Your task to perform on an android device: Turn off the flashlight Image 0: 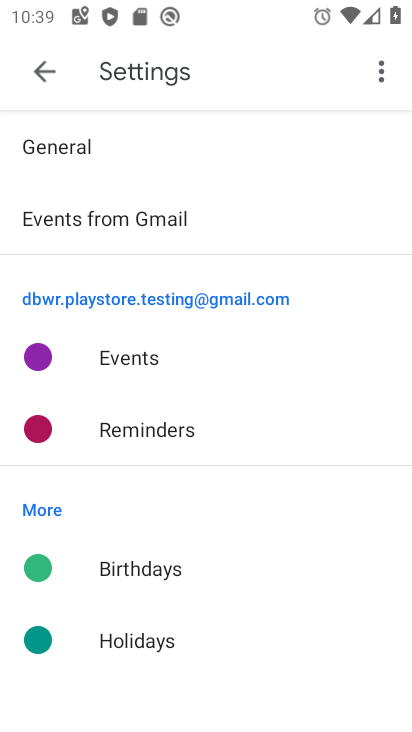
Step 0: press home button
Your task to perform on an android device: Turn off the flashlight Image 1: 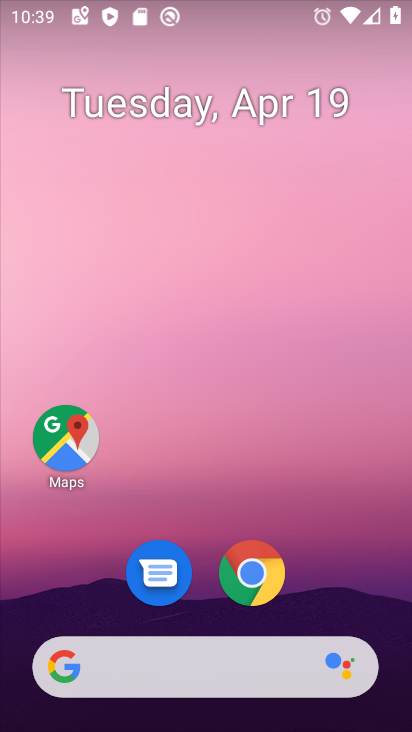
Step 1: drag from (330, 487) to (281, 120)
Your task to perform on an android device: Turn off the flashlight Image 2: 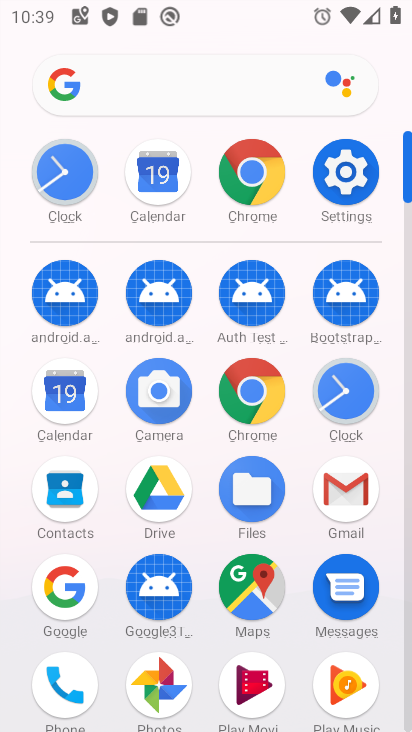
Step 2: click (348, 176)
Your task to perform on an android device: Turn off the flashlight Image 3: 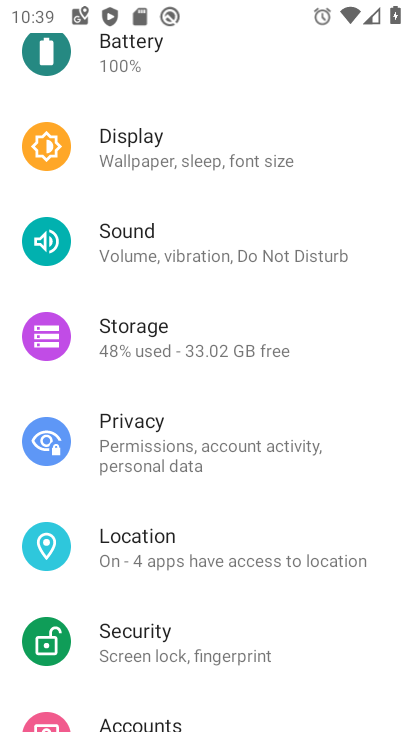
Step 3: drag from (228, 119) to (174, 499)
Your task to perform on an android device: Turn off the flashlight Image 4: 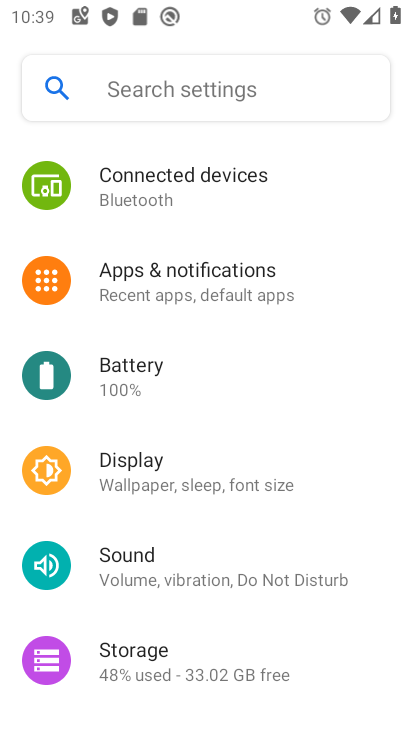
Step 4: click (145, 88)
Your task to perform on an android device: Turn off the flashlight Image 5: 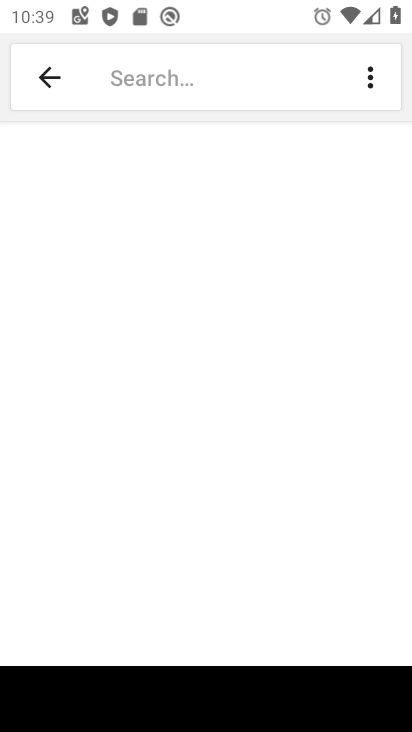
Step 5: type "flashlight"
Your task to perform on an android device: Turn off the flashlight Image 6: 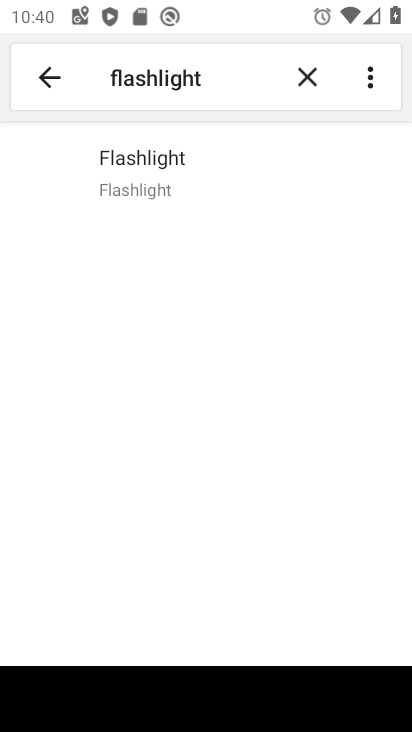
Step 6: click (158, 175)
Your task to perform on an android device: Turn off the flashlight Image 7: 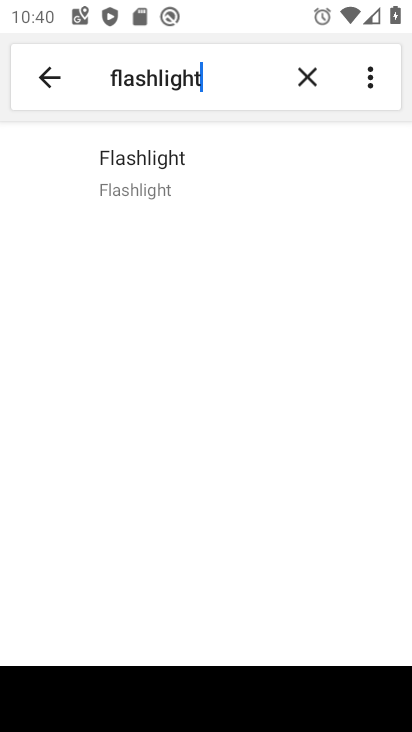
Step 7: click (158, 175)
Your task to perform on an android device: Turn off the flashlight Image 8: 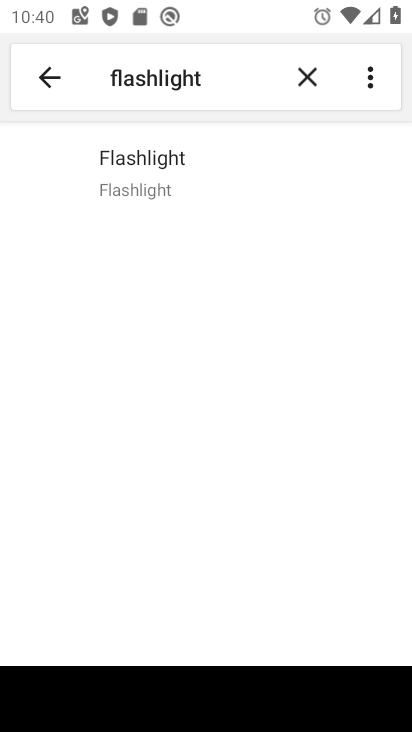
Step 8: task complete